Your task to perform on an android device: Go to display settings Image 0: 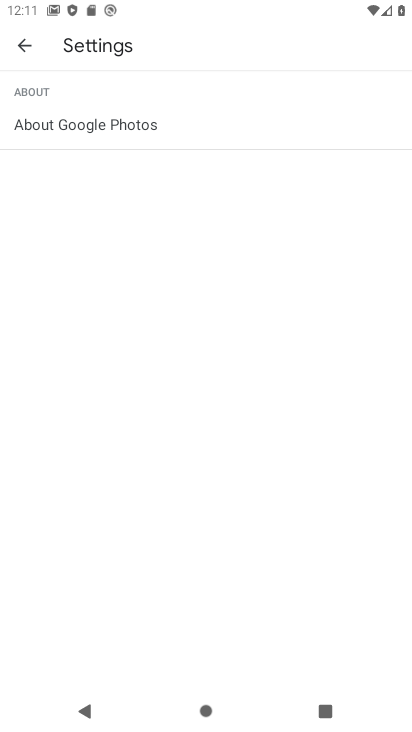
Step 0: press home button
Your task to perform on an android device: Go to display settings Image 1: 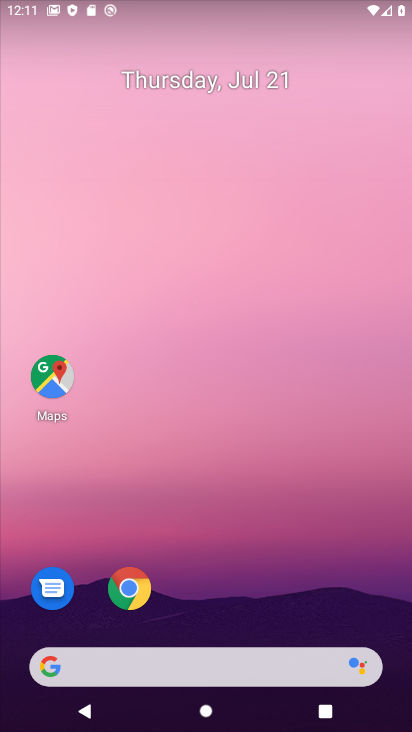
Step 1: drag from (293, 507) to (338, 10)
Your task to perform on an android device: Go to display settings Image 2: 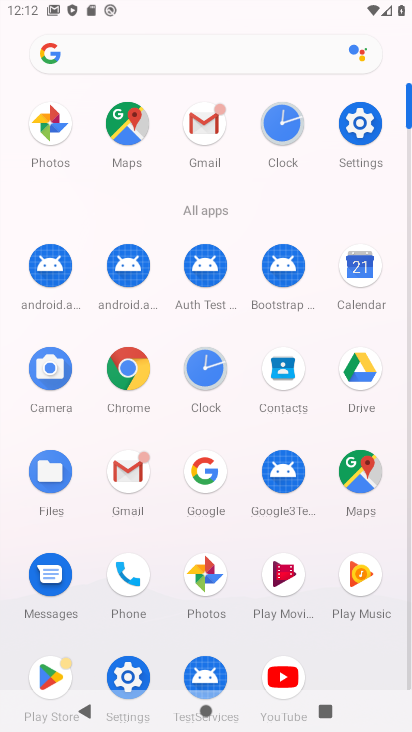
Step 2: click (121, 676)
Your task to perform on an android device: Go to display settings Image 3: 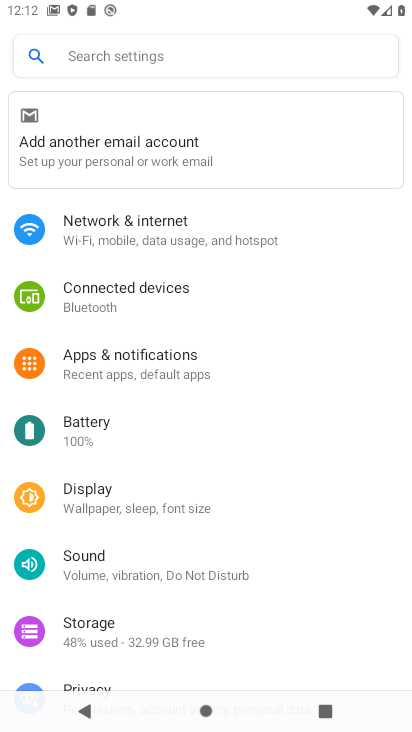
Step 3: click (157, 494)
Your task to perform on an android device: Go to display settings Image 4: 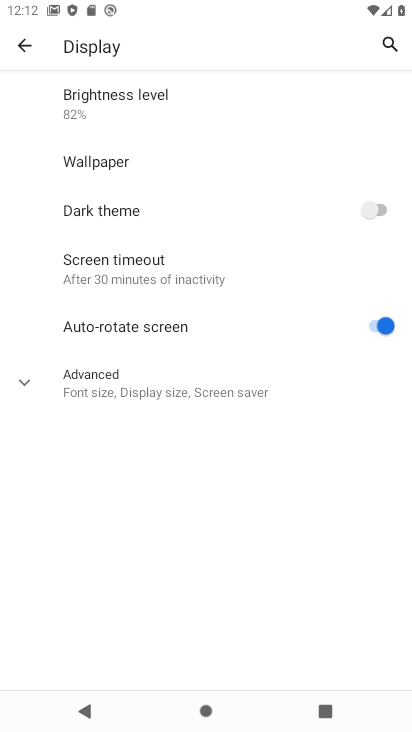
Step 4: task complete